Your task to perform on an android device: Go to location settings Image 0: 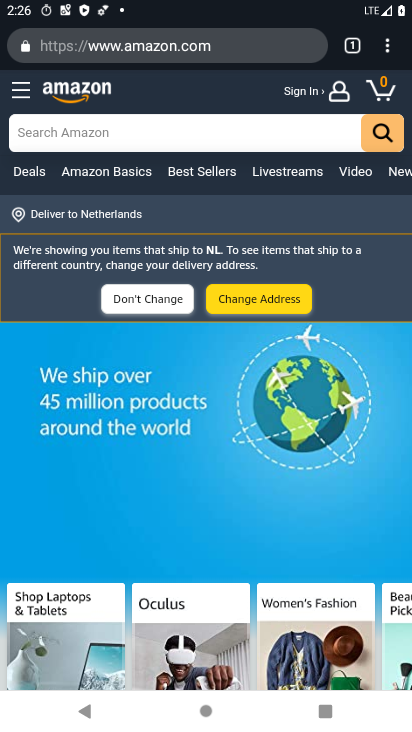
Step 0: press home button
Your task to perform on an android device: Go to location settings Image 1: 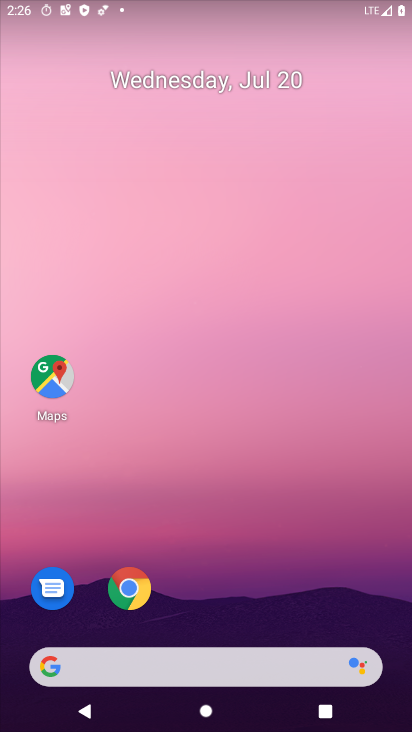
Step 1: drag from (304, 592) to (274, 107)
Your task to perform on an android device: Go to location settings Image 2: 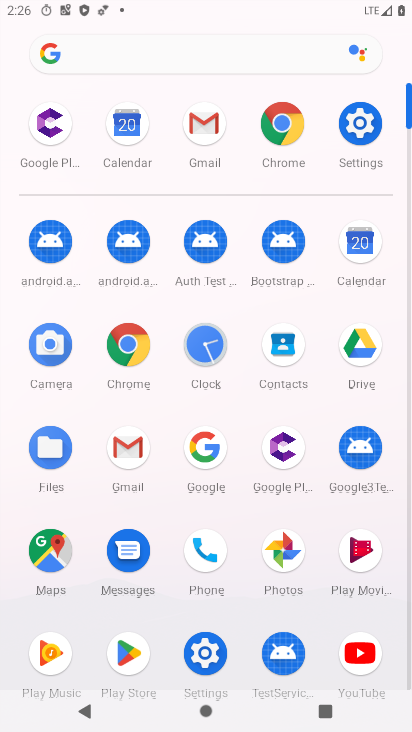
Step 2: click (377, 140)
Your task to perform on an android device: Go to location settings Image 3: 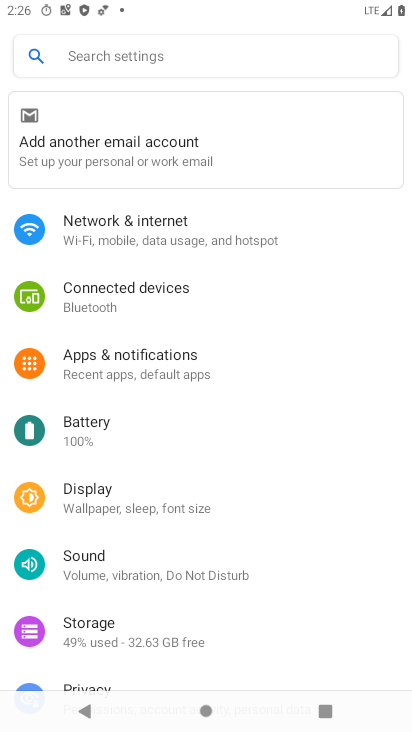
Step 3: drag from (156, 598) to (134, 241)
Your task to perform on an android device: Go to location settings Image 4: 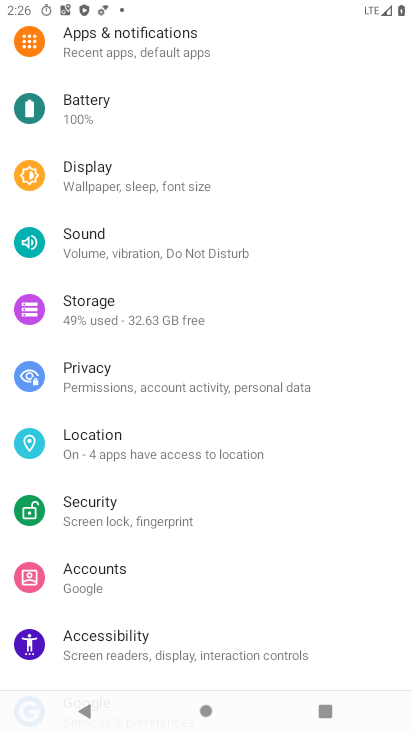
Step 4: click (103, 446)
Your task to perform on an android device: Go to location settings Image 5: 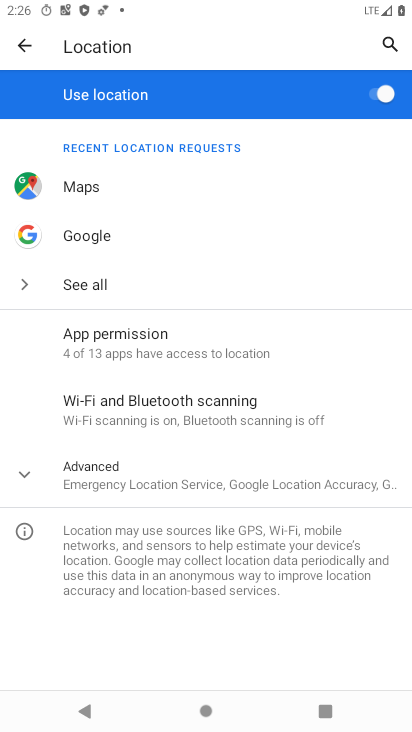
Step 5: task complete